Your task to perform on an android device: Check out the top rated books on Goodreads. Image 0: 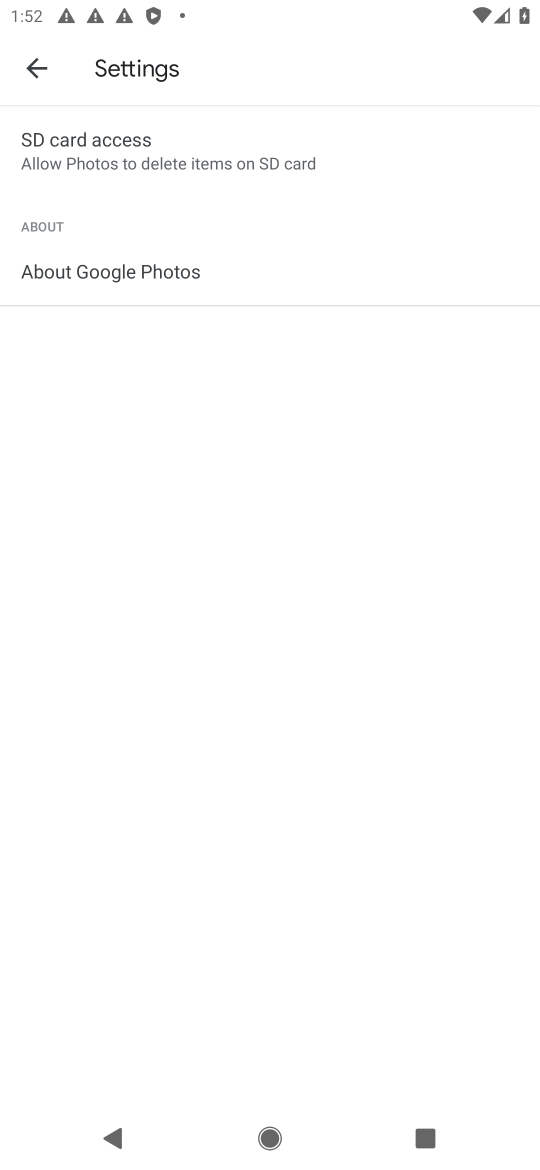
Step 0: press home button
Your task to perform on an android device: Check out the top rated books on Goodreads. Image 1: 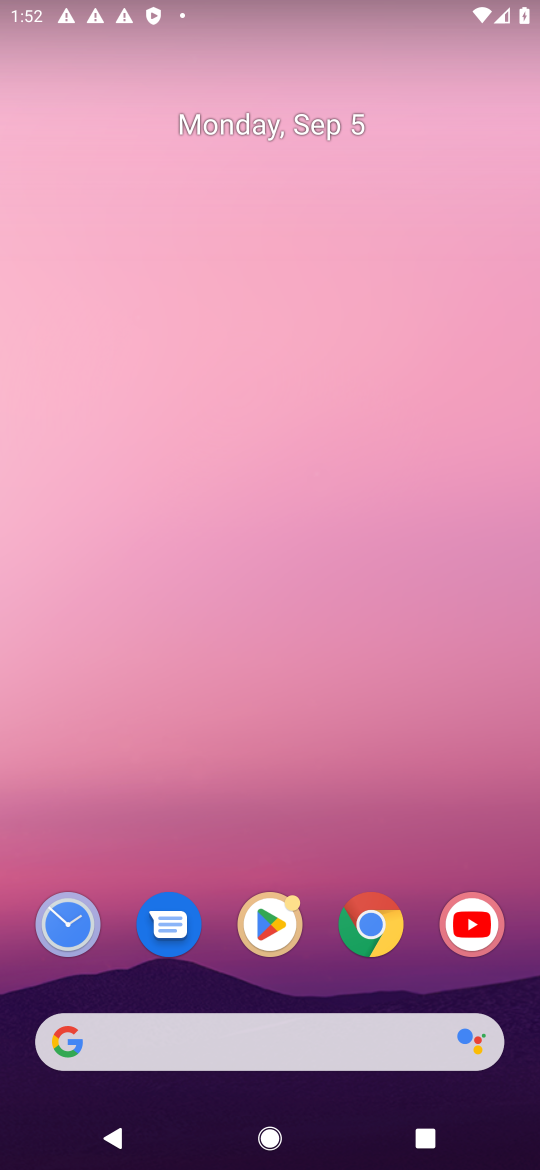
Step 1: click (351, 930)
Your task to perform on an android device: Check out the top rated books on Goodreads. Image 2: 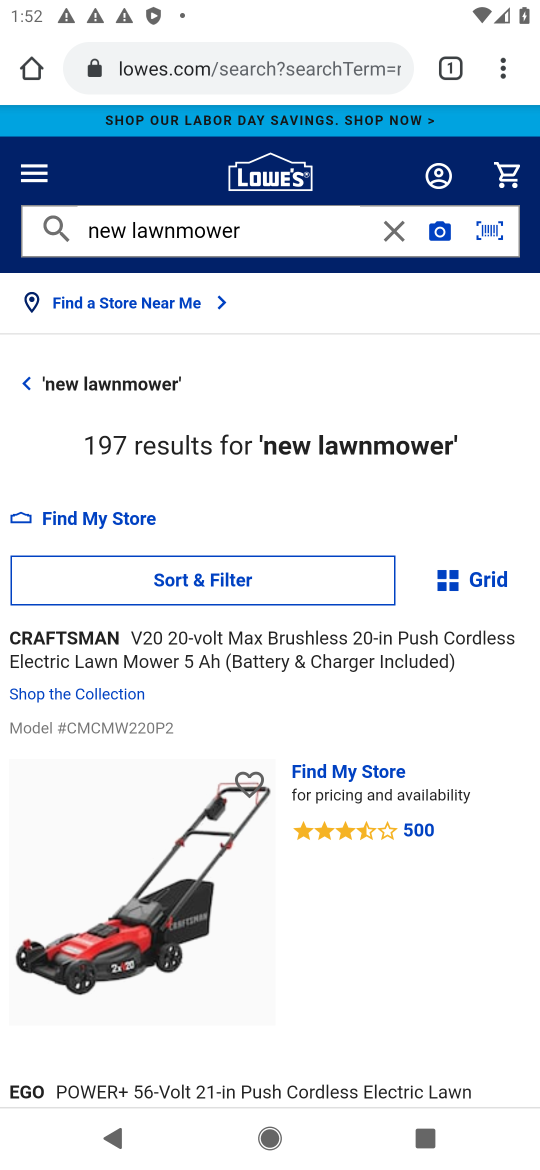
Step 2: click (330, 49)
Your task to perform on an android device: Check out the top rated books on Goodreads. Image 3: 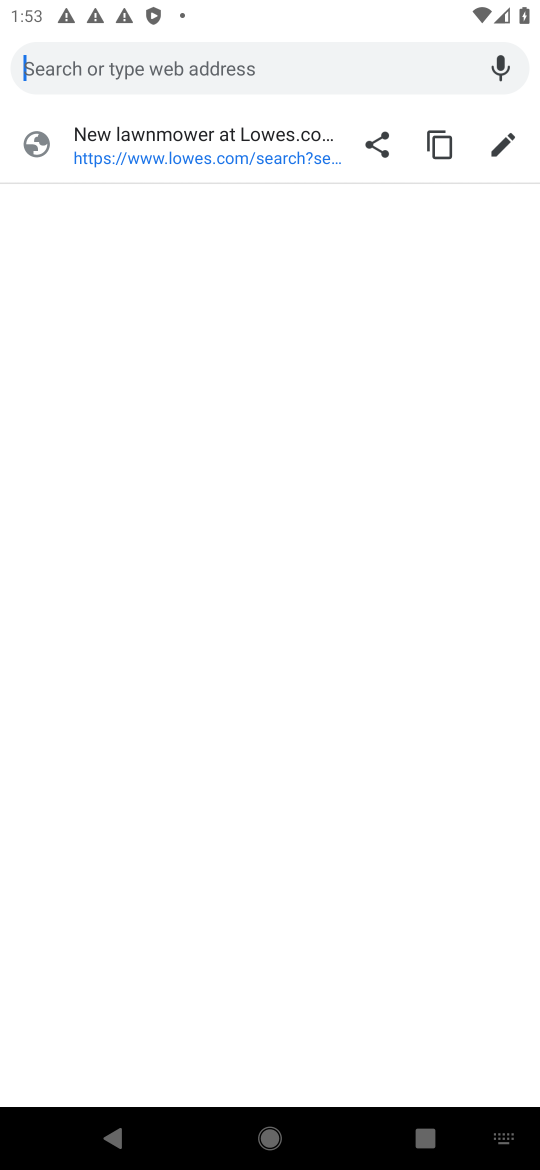
Step 3: type "Goodreads"
Your task to perform on an android device: Check out the top rated books on Goodreads. Image 4: 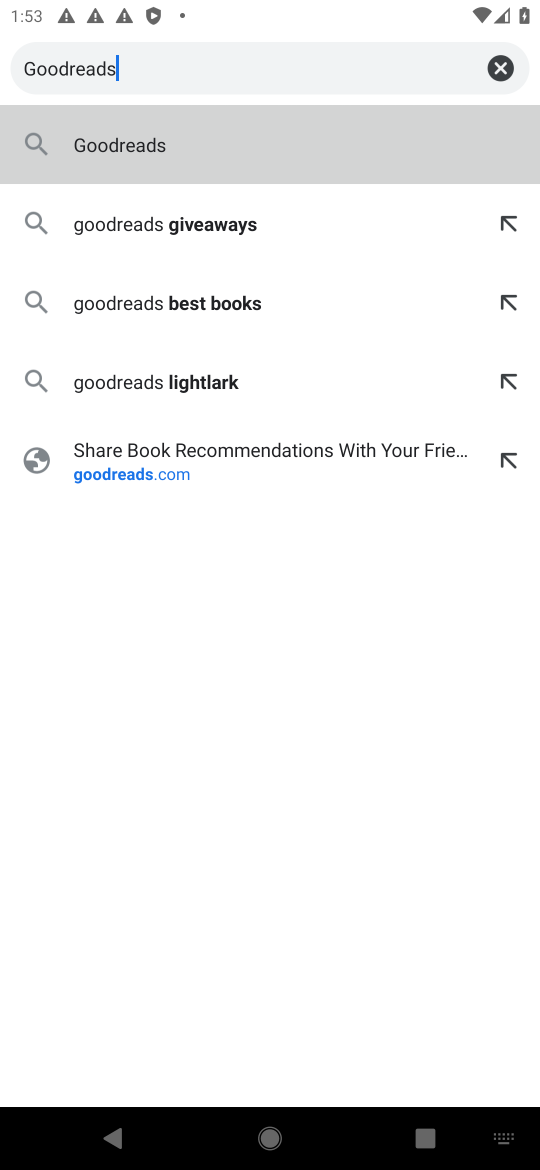
Step 4: click (382, 152)
Your task to perform on an android device: Check out the top rated books on Goodreads. Image 5: 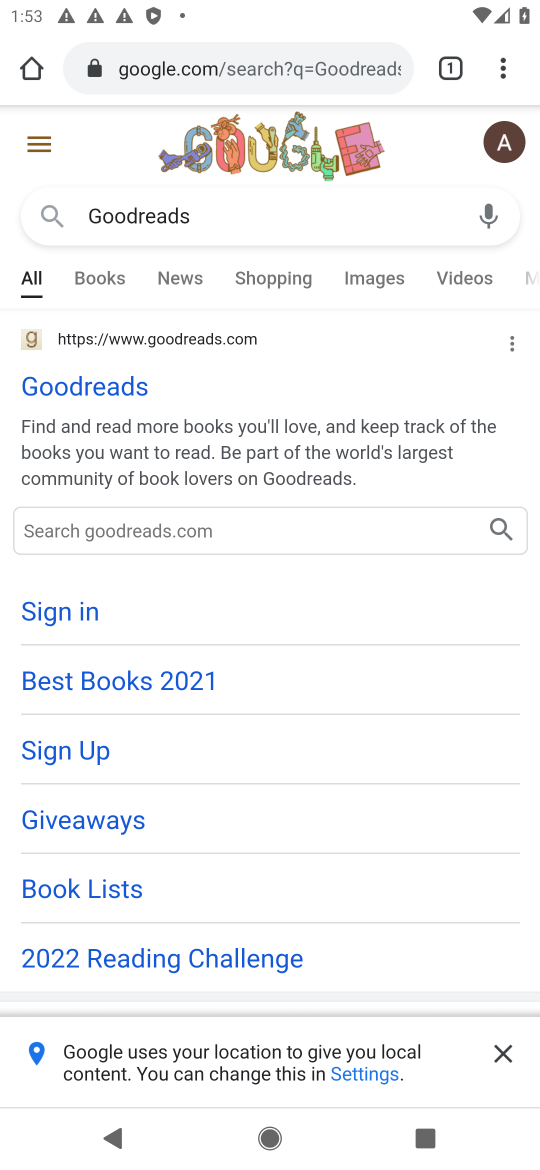
Step 5: click (67, 384)
Your task to perform on an android device: Check out the top rated books on Goodreads. Image 6: 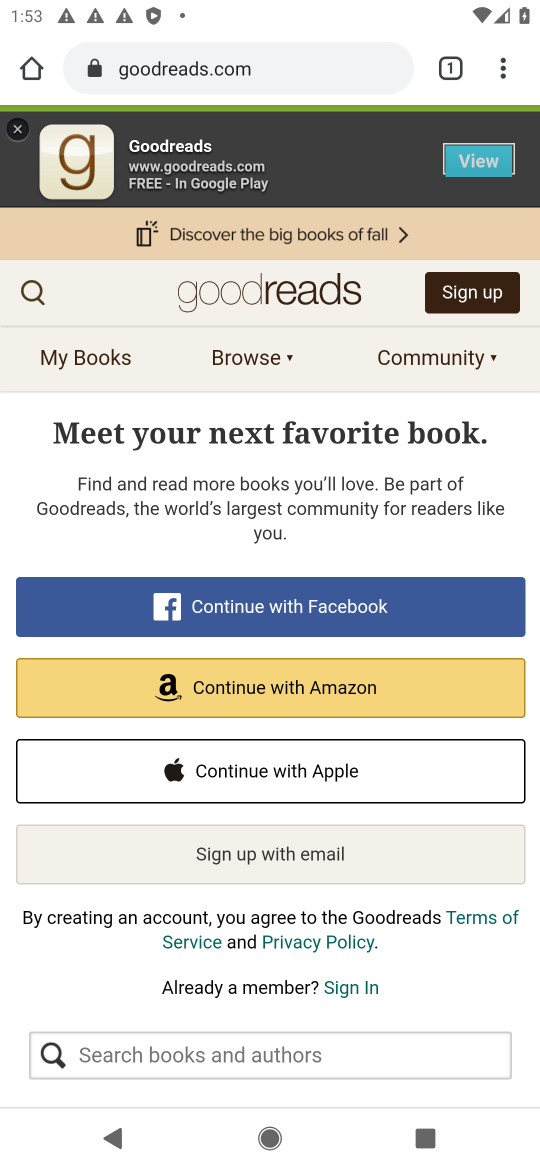
Step 6: click (33, 293)
Your task to perform on an android device: Check out the top rated books on Goodreads. Image 7: 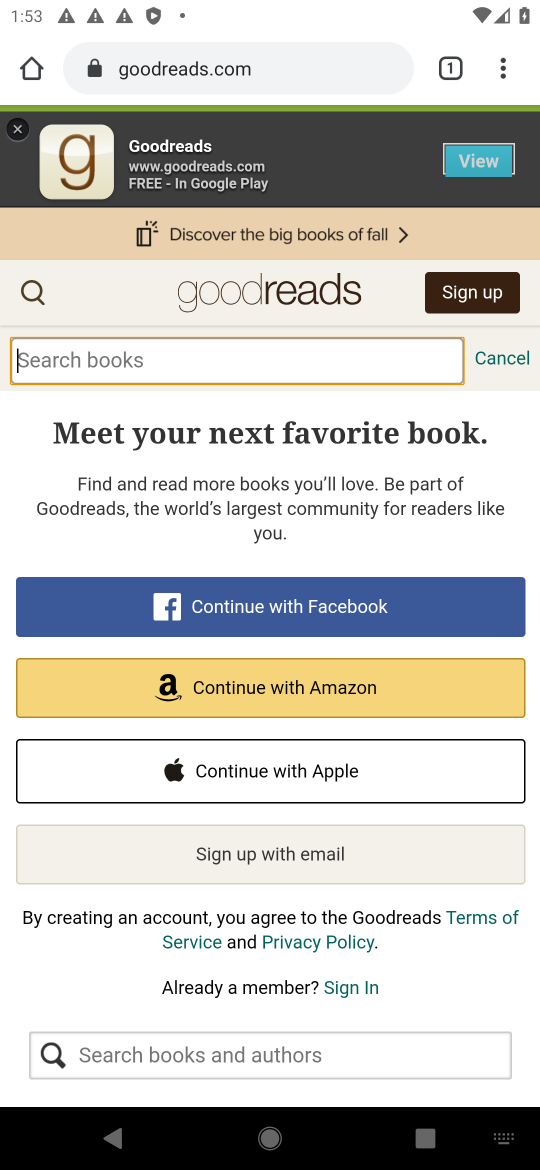
Step 7: type "top rated books"
Your task to perform on an android device: Check out the top rated books on Goodreads. Image 8: 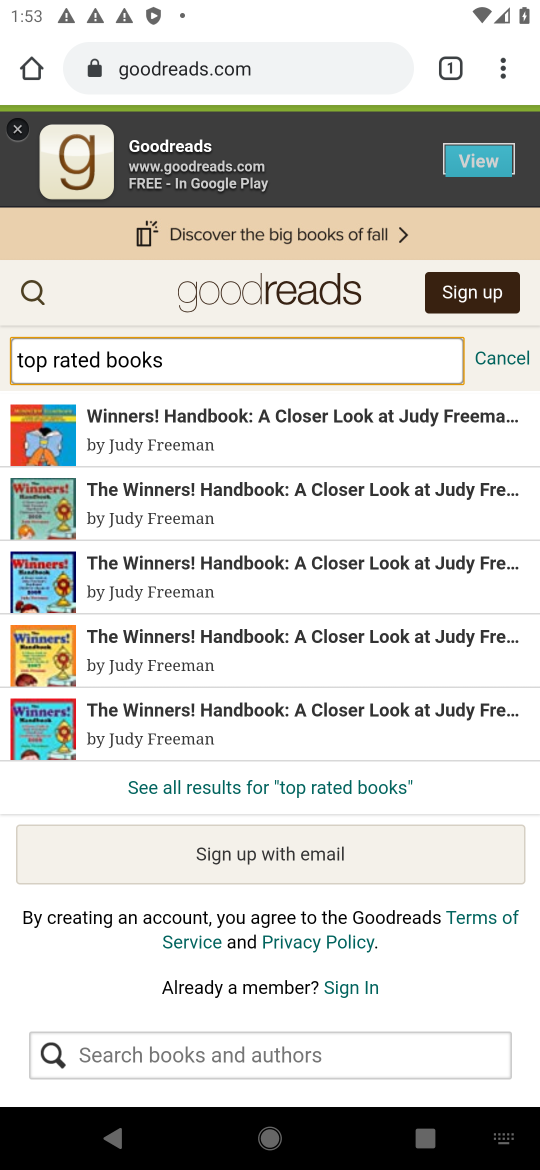
Step 8: task complete